Your task to perform on an android device: add a contact Image 0: 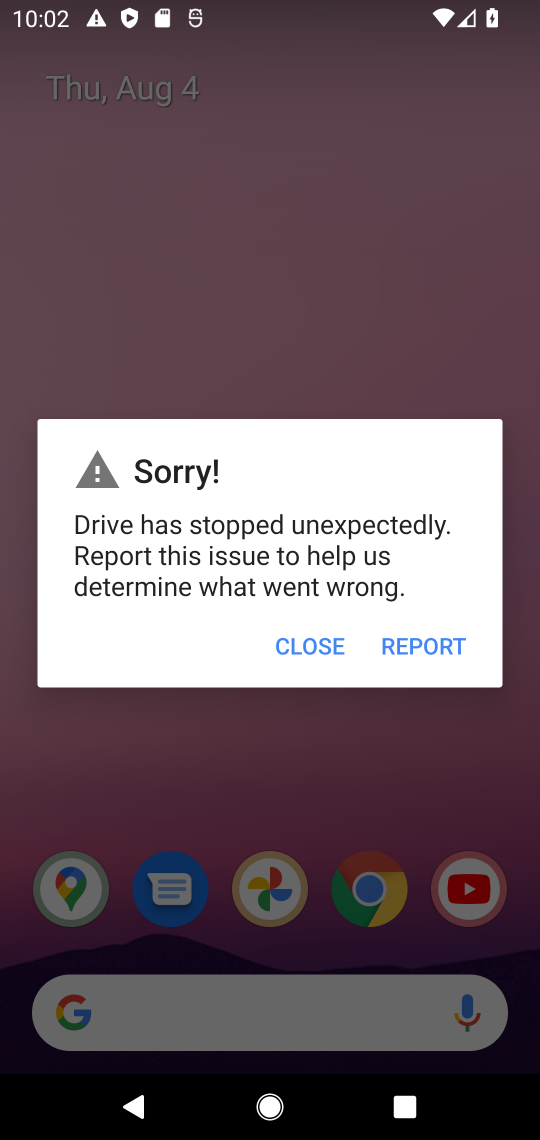
Step 0: press home button
Your task to perform on an android device: add a contact Image 1: 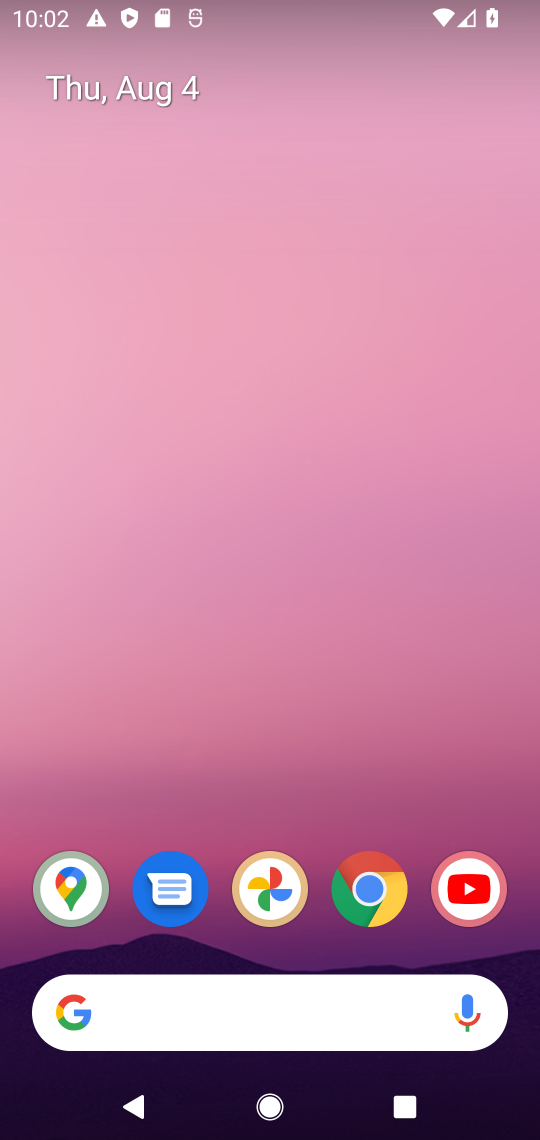
Step 1: drag from (337, 784) to (427, 217)
Your task to perform on an android device: add a contact Image 2: 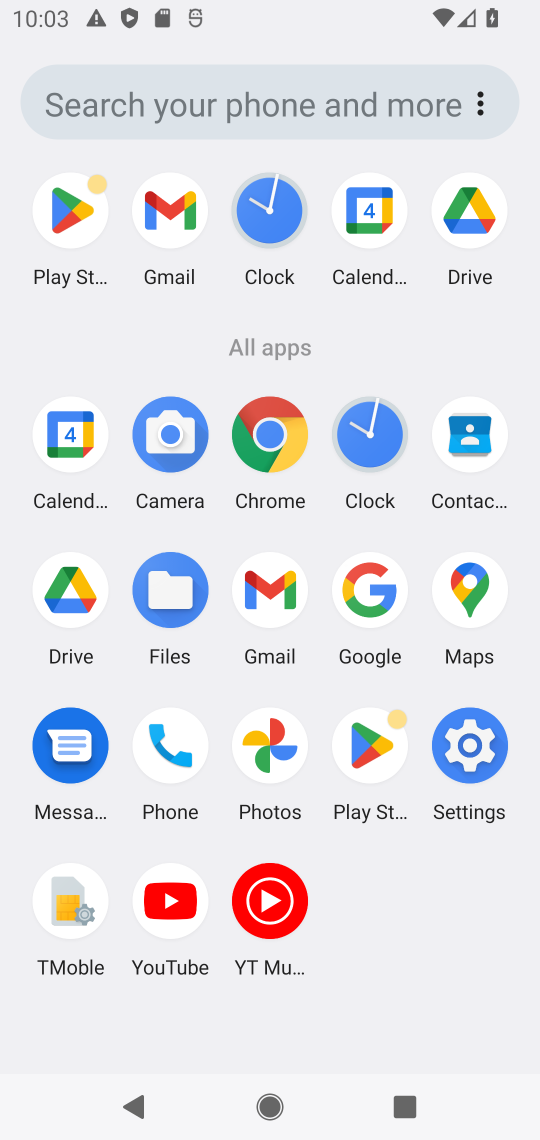
Step 2: click (472, 429)
Your task to perform on an android device: add a contact Image 3: 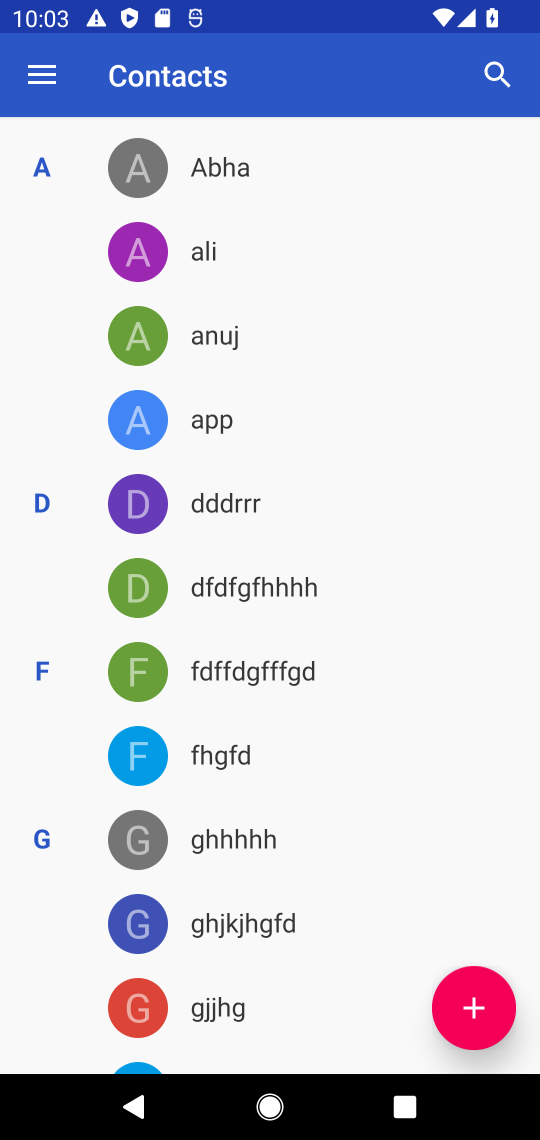
Step 3: click (472, 1008)
Your task to perform on an android device: add a contact Image 4: 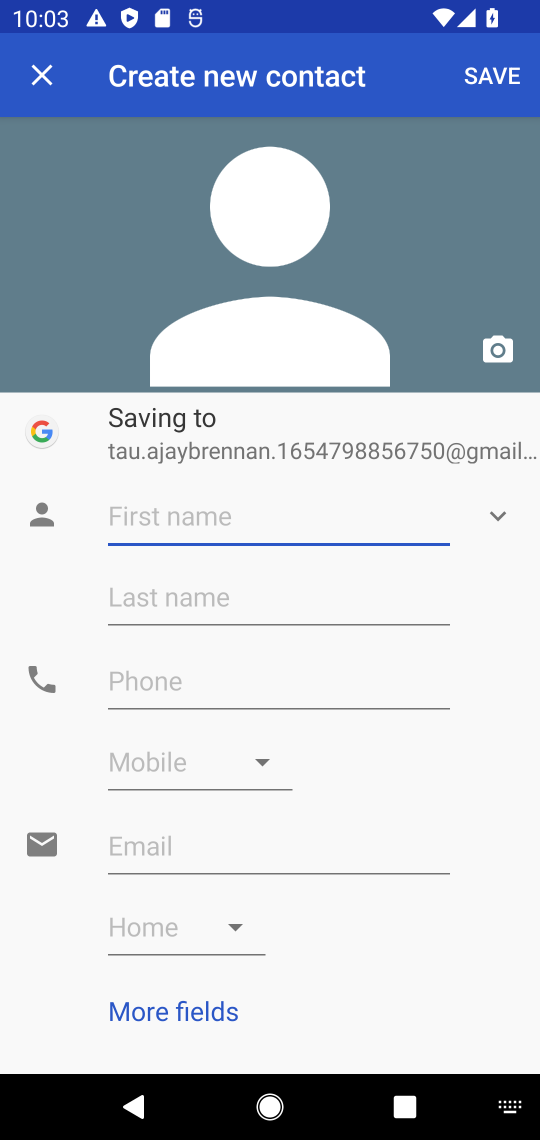
Step 4: click (411, 514)
Your task to perform on an android device: add a contact Image 5: 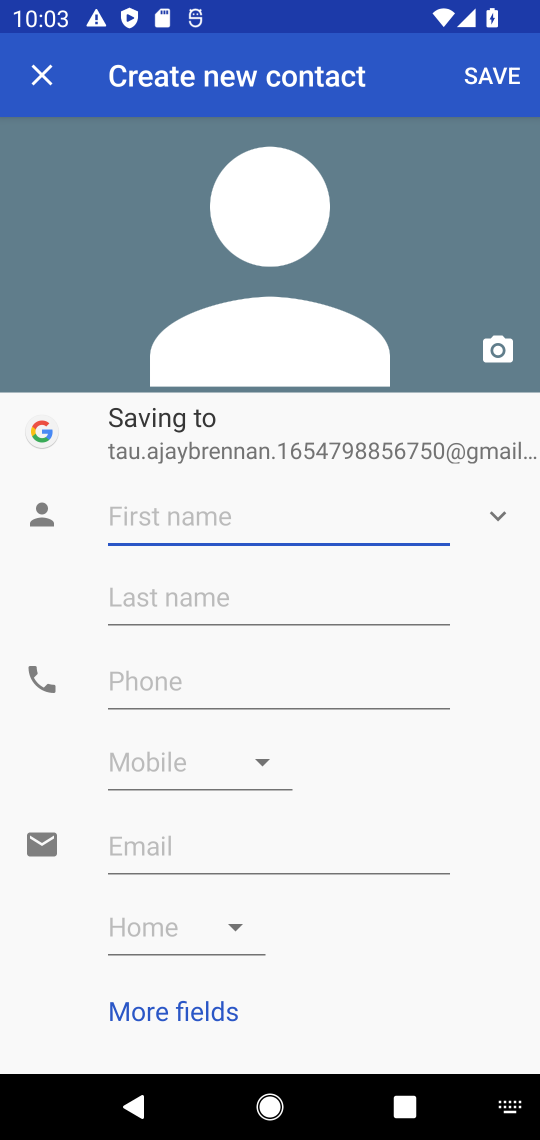
Step 5: type "fav"
Your task to perform on an android device: add a contact Image 6: 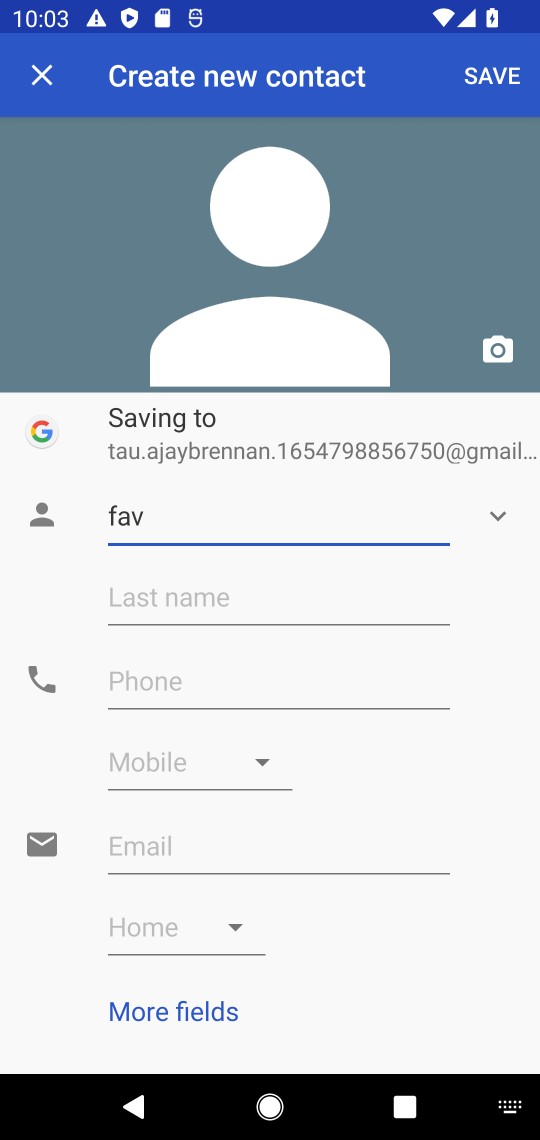
Step 6: click (354, 666)
Your task to perform on an android device: add a contact Image 7: 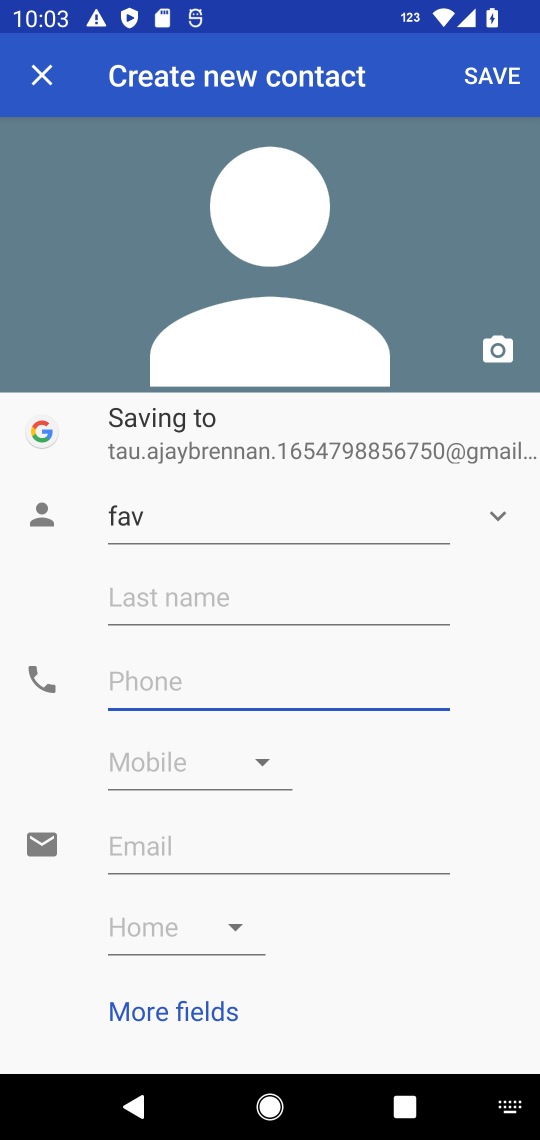
Step 7: type "1234567890"
Your task to perform on an android device: add a contact Image 8: 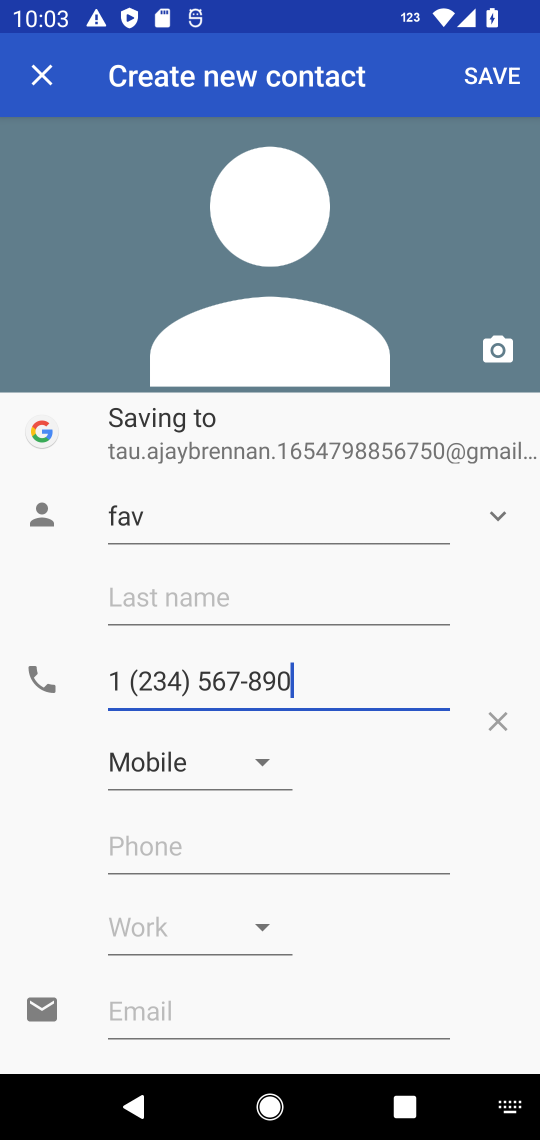
Step 8: click (500, 69)
Your task to perform on an android device: add a contact Image 9: 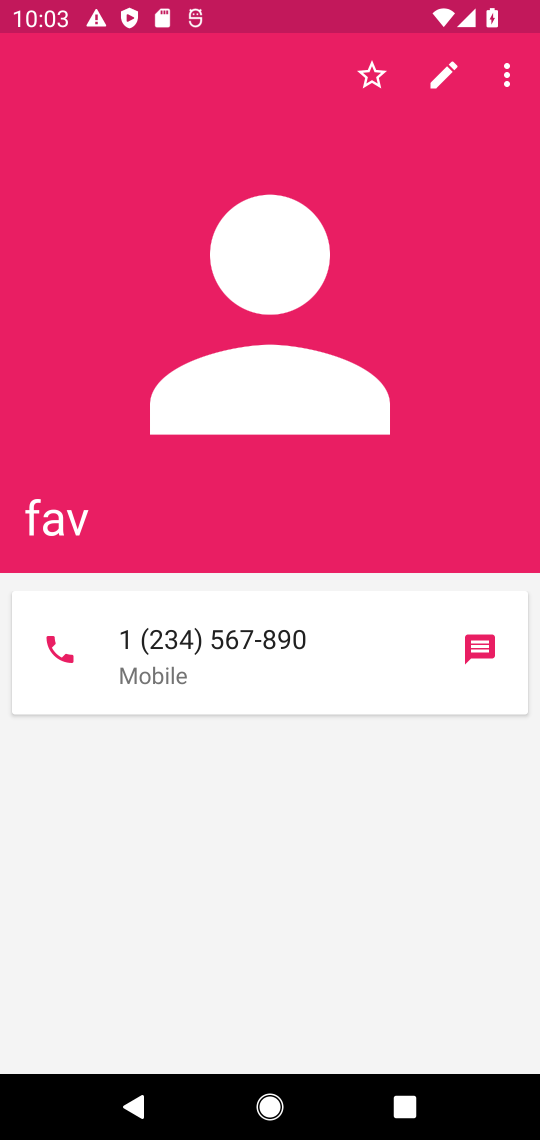
Step 9: task complete